Your task to perform on an android device: Go to sound settings Image 0: 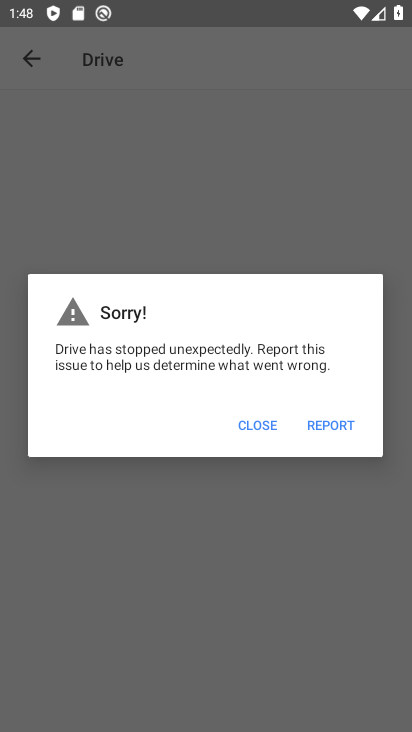
Step 0: click (255, 421)
Your task to perform on an android device: Go to sound settings Image 1: 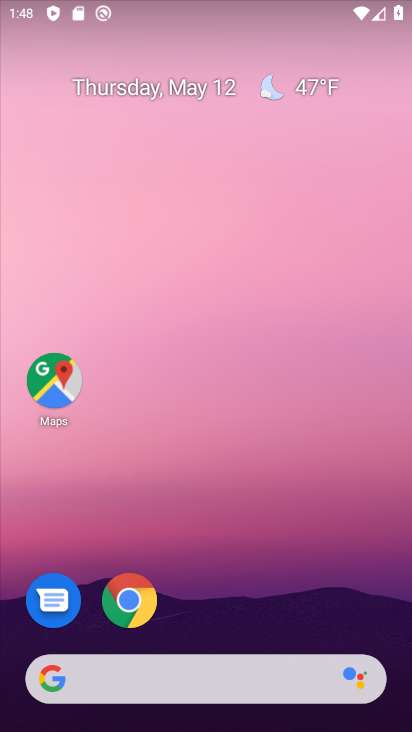
Step 1: drag from (188, 621) to (254, 83)
Your task to perform on an android device: Go to sound settings Image 2: 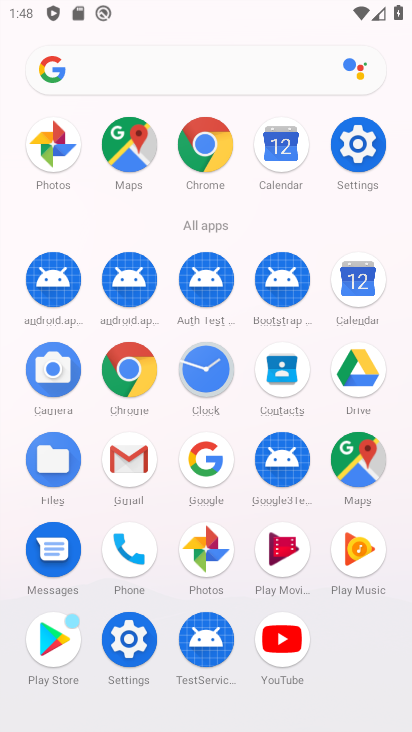
Step 2: click (354, 155)
Your task to perform on an android device: Go to sound settings Image 3: 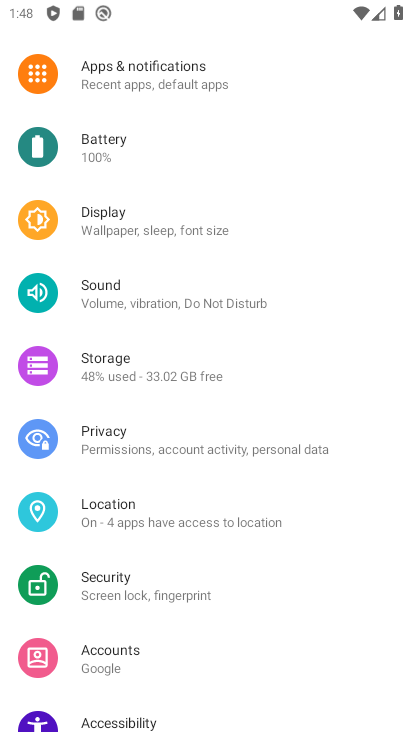
Step 3: click (155, 294)
Your task to perform on an android device: Go to sound settings Image 4: 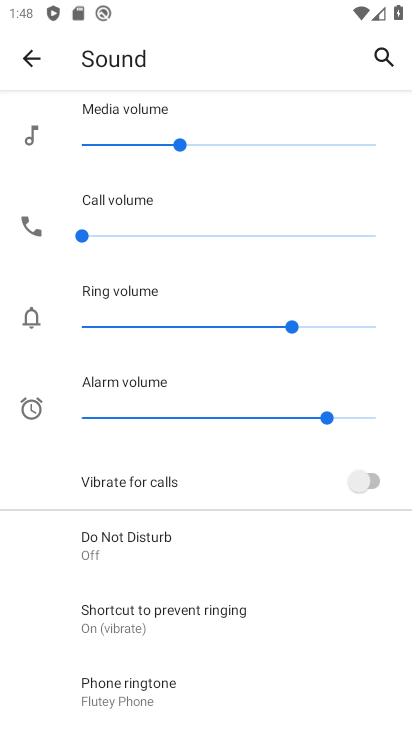
Step 4: task complete